Your task to perform on an android device: Go to settings Image 0: 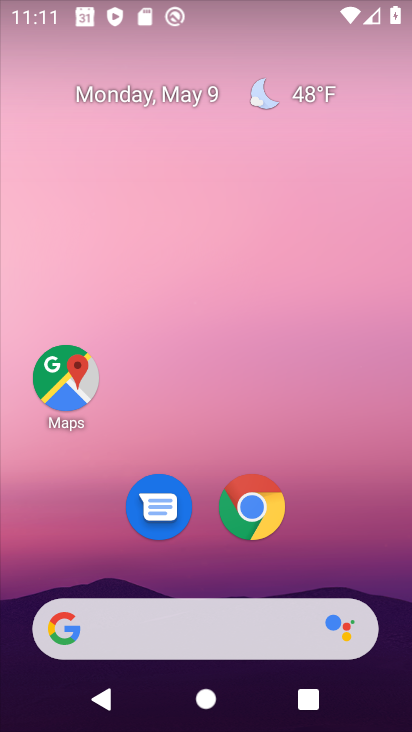
Step 0: drag from (320, 452) to (310, 133)
Your task to perform on an android device: Go to settings Image 1: 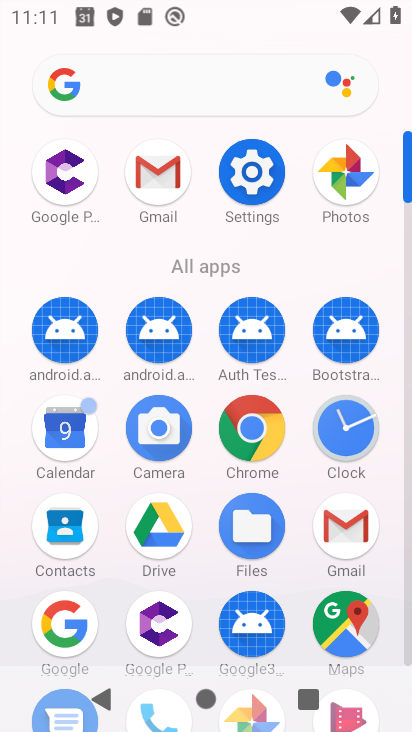
Step 1: click (251, 183)
Your task to perform on an android device: Go to settings Image 2: 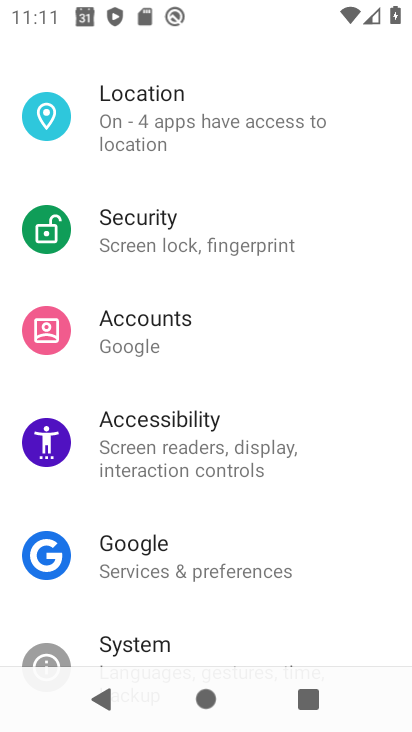
Step 2: task complete